Your task to perform on an android device: Do I have any events this weekend? Image 0: 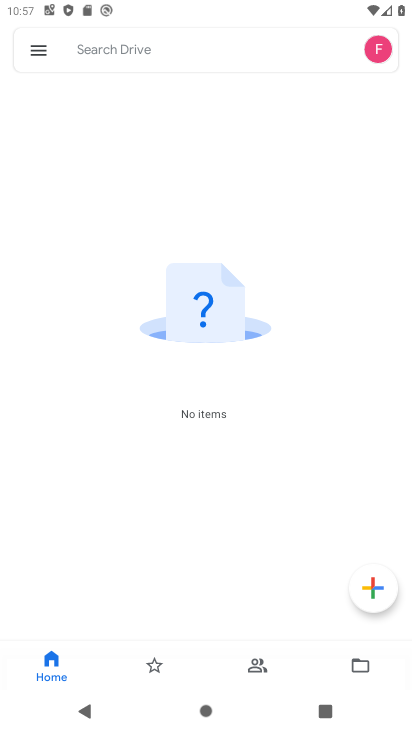
Step 0: press back button
Your task to perform on an android device: Do I have any events this weekend? Image 1: 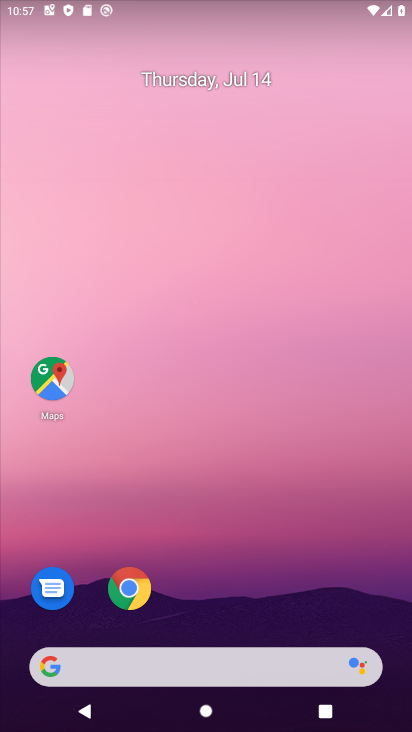
Step 1: drag from (381, 606) to (373, 130)
Your task to perform on an android device: Do I have any events this weekend? Image 2: 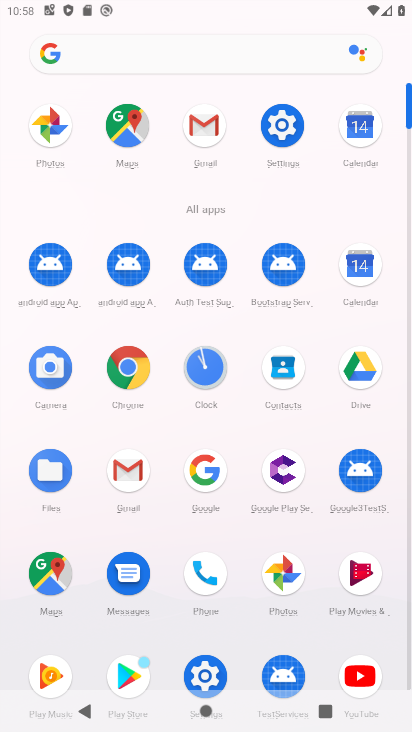
Step 2: click (355, 260)
Your task to perform on an android device: Do I have any events this weekend? Image 3: 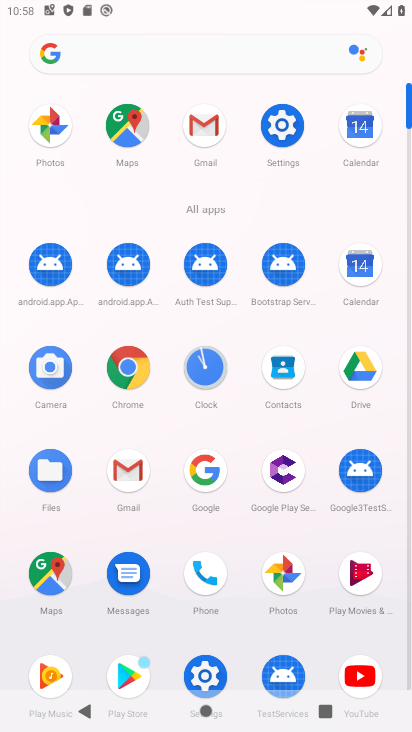
Step 3: click (358, 265)
Your task to perform on an android device: Do I have any events this weekend? Image 4: 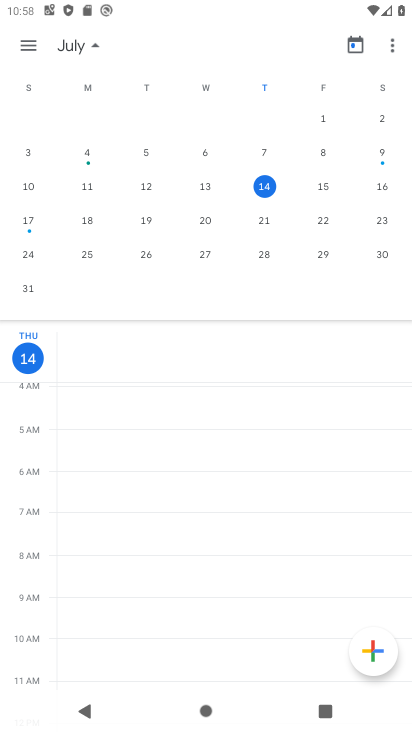
Step 4: click (20, 41)
Your task to perform on an android device: Do I have any events this weekend? Image 5: 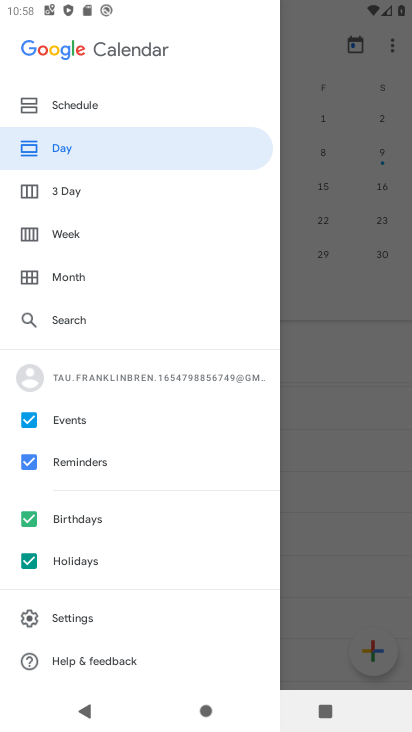
Step 5: click (64, 235)
Your task to perform on an android device: Do I have any events this weekend? Image 6: 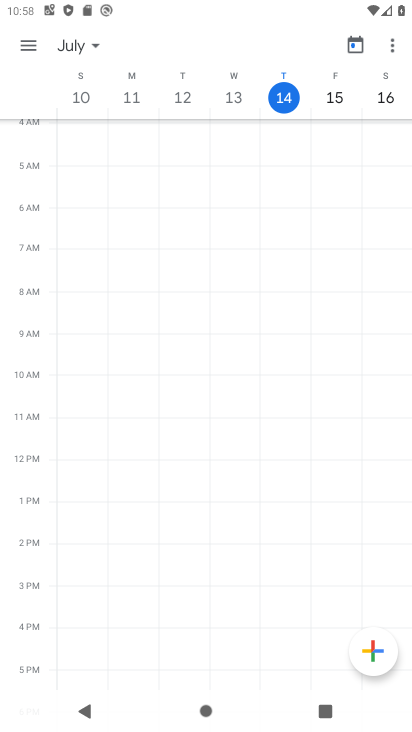
Step 6: click (95, 44)
Your task to perform on an android device: Do I have any events this weekend? Image 7: 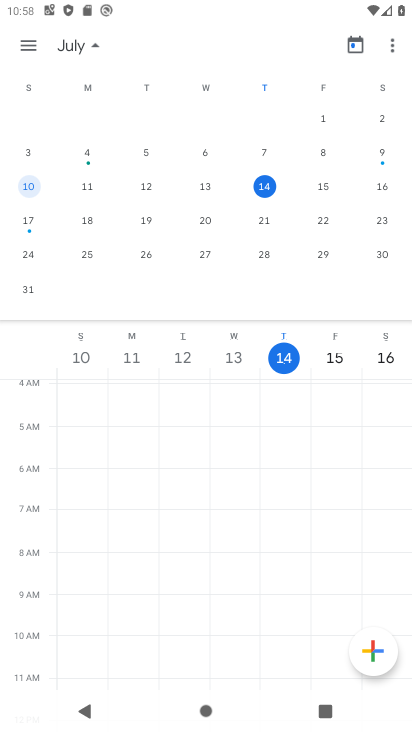
Step 7: task complete